Your task to perform on an android device: set the stopwatch Image 0: 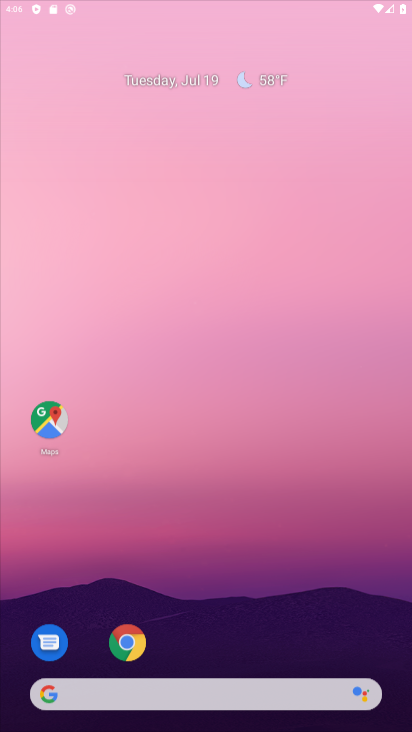
Step 0: drag from (277, 523) to (270, 131)
Your task to perform on an android device: set the stopwatch Image 1: 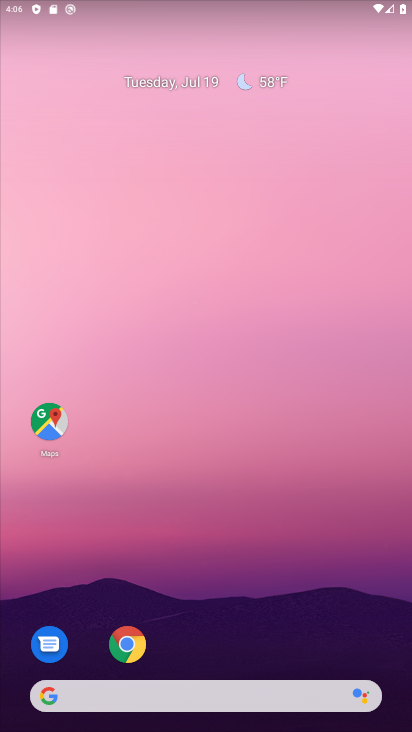
Step 1: drag from (268, 657) to (273, 121)
Your task to perform on an android device: set the stopwatch Image 2: 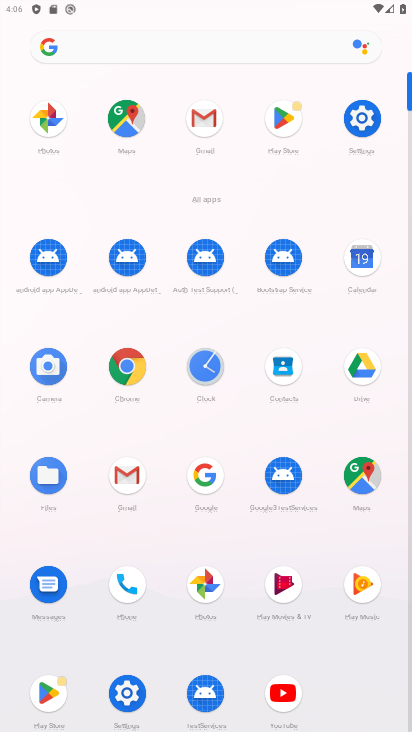
Step 2: click (215, 369)
Your task to perform on an android device: set the stopwatch Image 3: 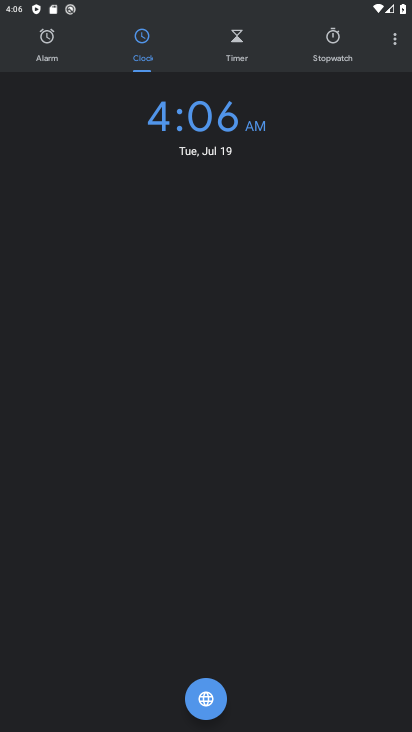
Step 3: click (317, 51)
Your task to perform on an android device: set the stopwatch Image 4: 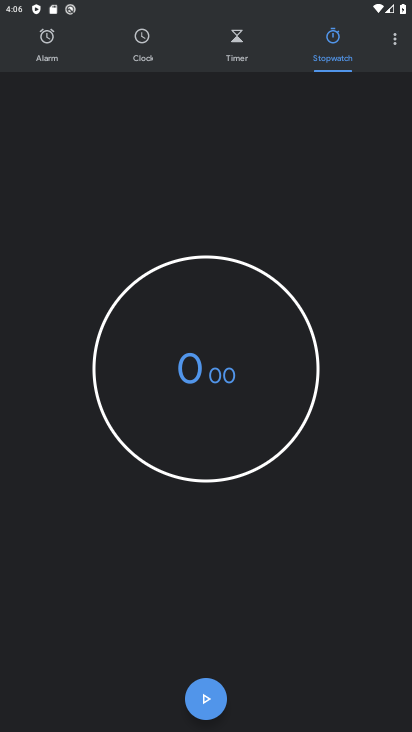
Step 4: click (213, 701)
Your task to perform on an android device: set the stopwatch Image 5: 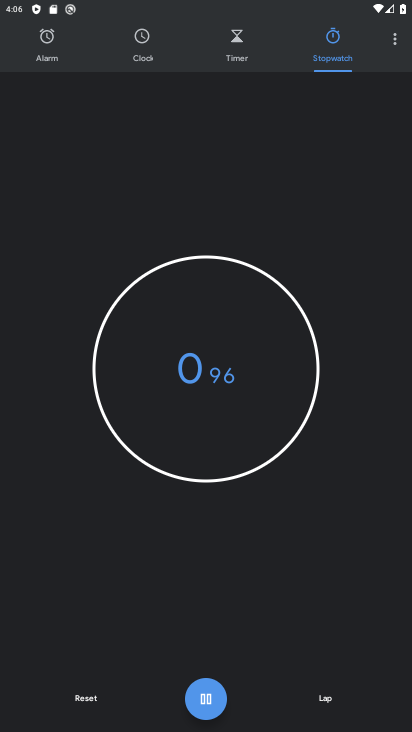
Step 5: click (213, 701)
Your task to perform on an android device: set the stopwatch Image 6: 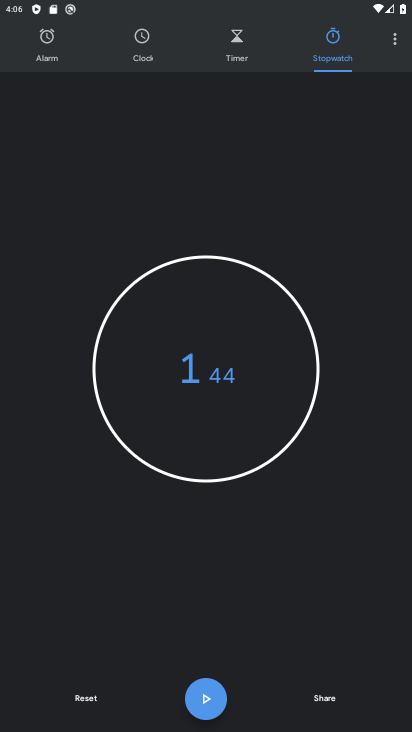
Step 6: task complete